Your task to perform on an android device: change the upload size in google photos Image 0: 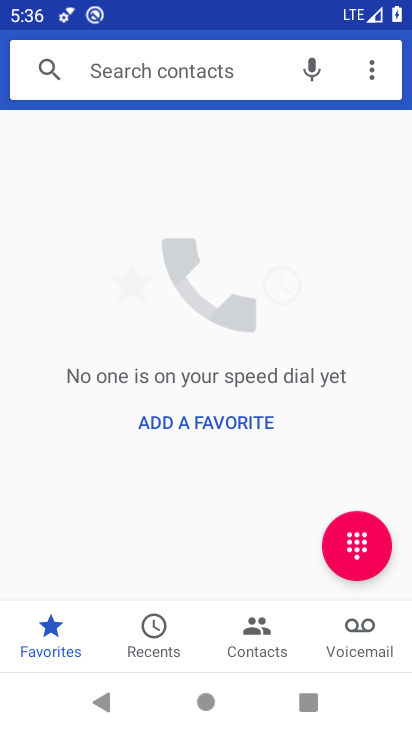
Step 0: press home button
Your task to perform on an android device: change the upload size in google photos Image 1: 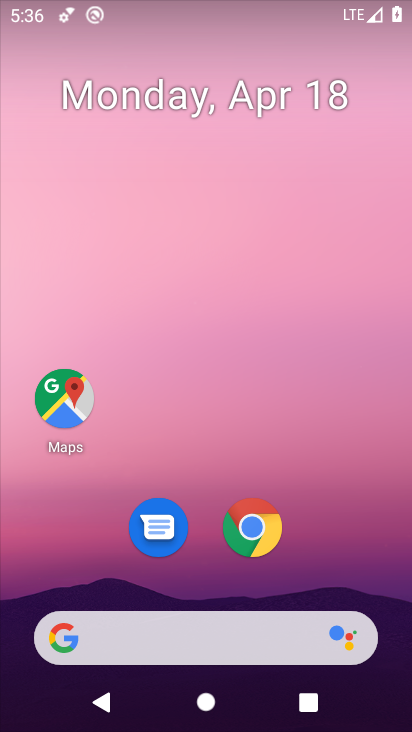
Step 1: drag from (206, 599) to (220, 171)
Your task to perform on an android device: change the upload size in google photos Image 2: 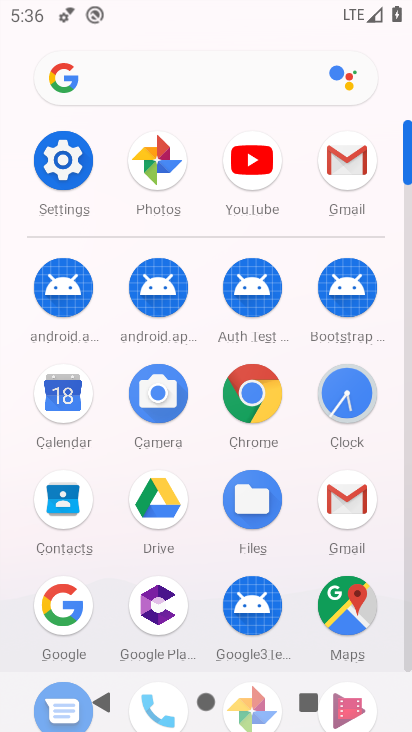
Step 2: click (155, 162)
Your task to perform on an android device: change the upload size in google photos Image 3: 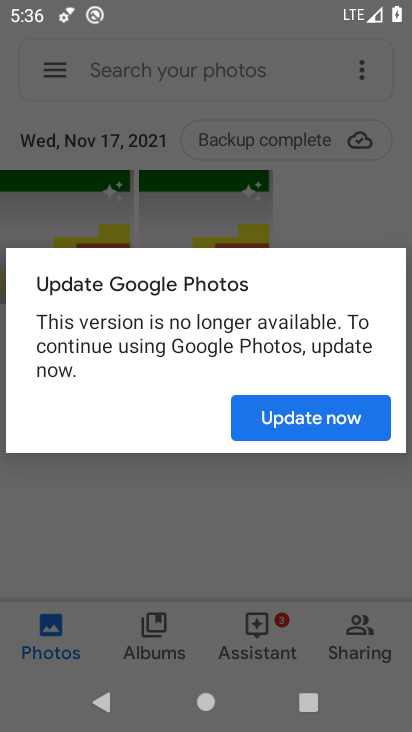
Step 3: click (290, 416)
Your task to perform on an android device: change the upload size in google photos Image 4: 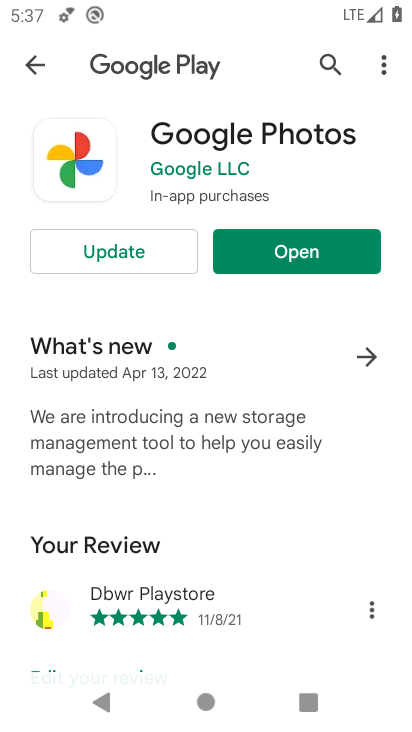
Step 4: click (288, 253)
Your task to perform on an android device: change the upload size in google photos Image 5: 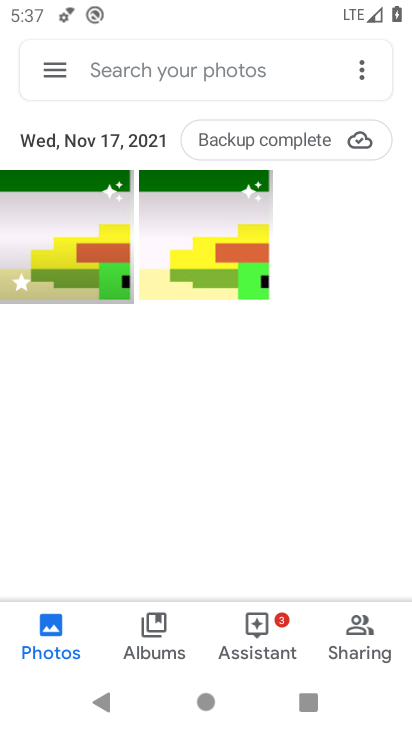
Step 5: click (54, 70)
Your task to perform on an android device: change the upload size in google photos Image 6: 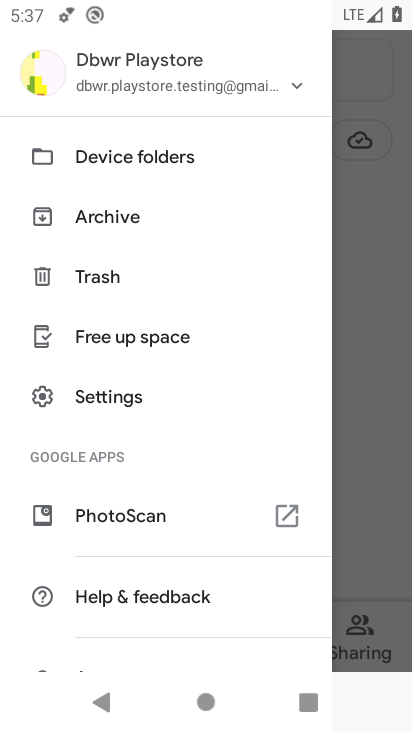
Step 6: click (98, 377)
Your task to perform on an android device: change the upload size in google photos Image 7: 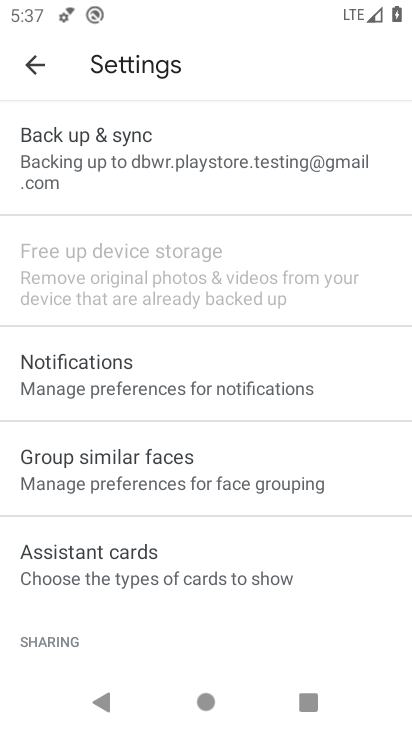
Step 7: drag from (188, 625) to (170, 351)
Your task to perform on an android device: change the upload size in google photos Image 8: 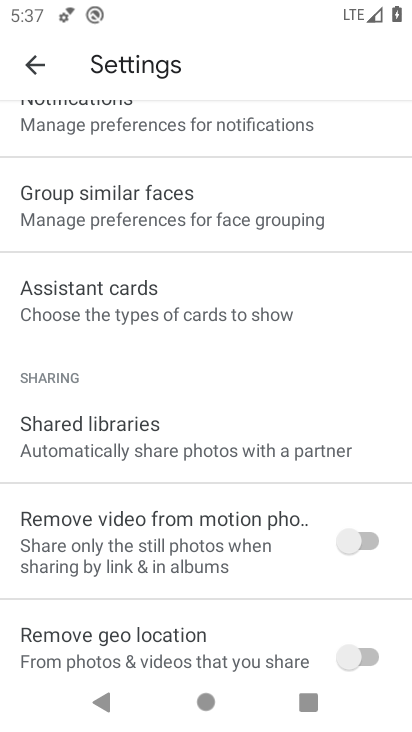
Step 8: drag from (194, 118) to (164, 503)
Your task to perform on an android device: change the upload size in google photos Image 9: 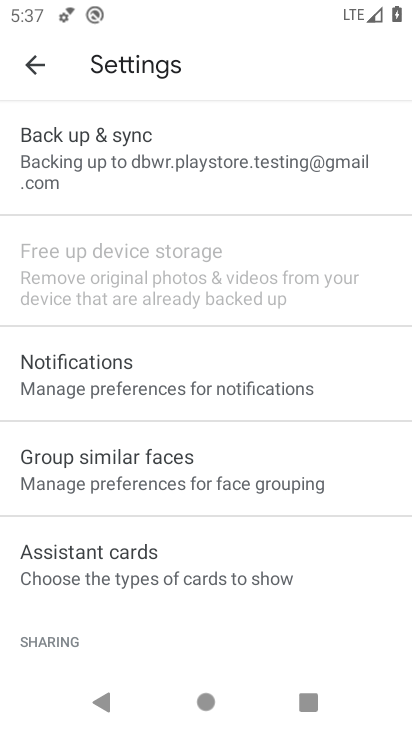
Step 9: click (129, 158)
Your task to perform on an android device: change the upload size in google photos Image 10: 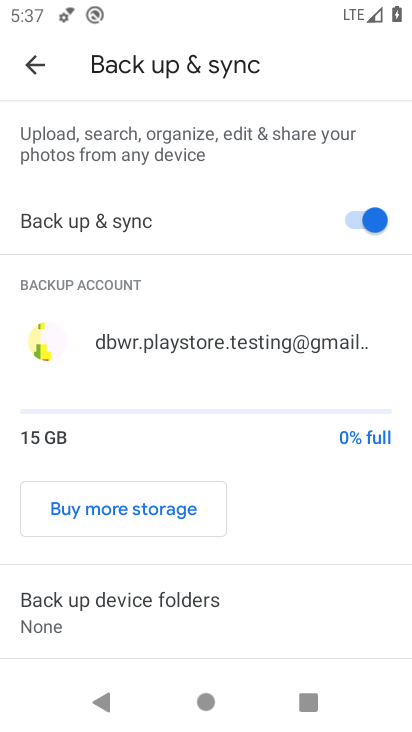
Step 10: drag from (215, 611) to (214, 213)
Your task to perform on an android device: change the upload size in google photos Image 11: 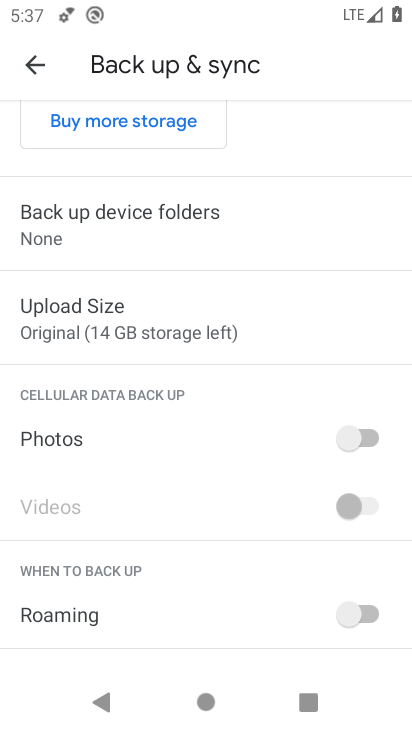
Step 11: click (104, 326)
Your task to perform on an android device: change the upload size in google photos Image 12: 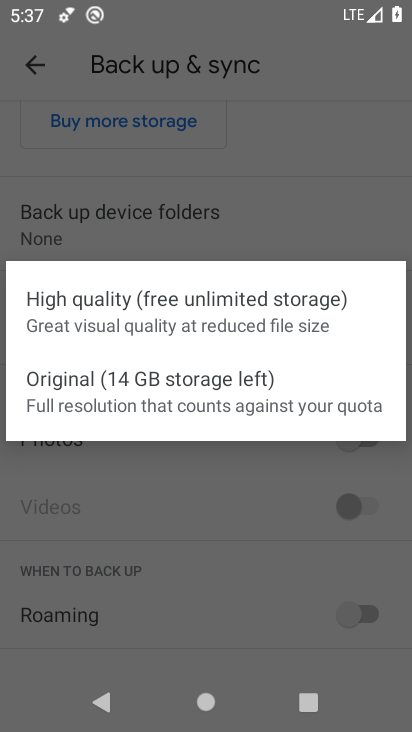
Step 12: click (82, 316)
Your task to perform on an android device: change the upload size in google photos Image 13: 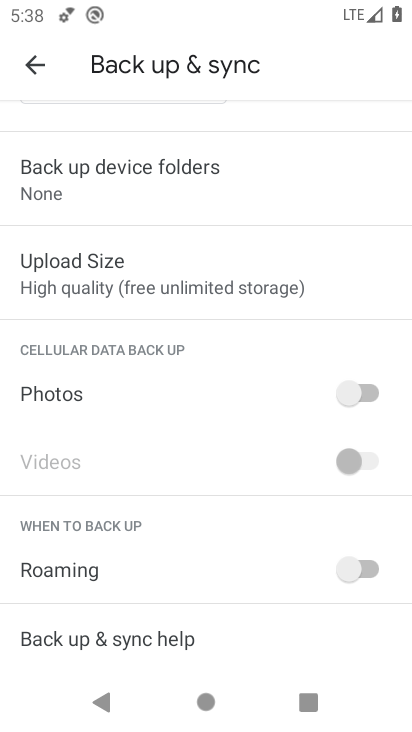
Step 13: task complete